Your task to perform on an android device: Add bose soundlink mini to the cart on target Image 0: 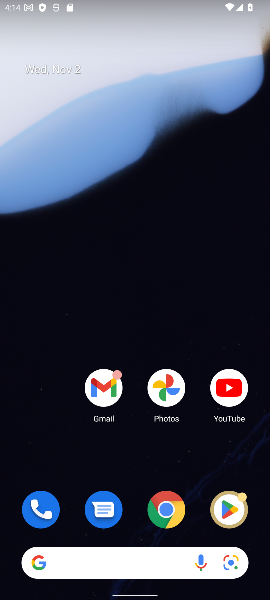
Step 0: click (149, 564)
Your task to perform on an android device: Add bose soundlink mini to the cart on target Image 1: 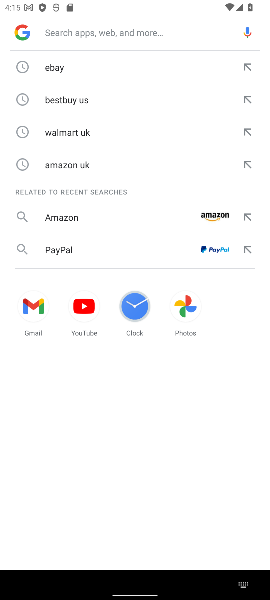
Step 1: type "target"
Your task to perform on an android device: Add bose soundlink mini to the cart on target Image 2: 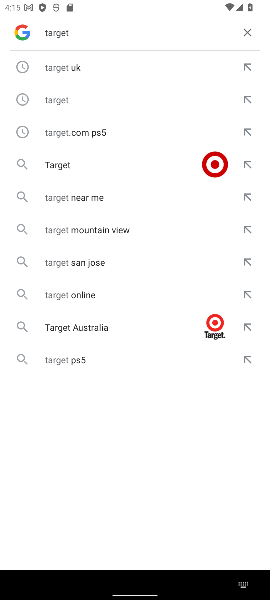
Step 2: click (63, 162)
Your task to perform on an android device: Add bose soundlink mini to the cart on target Image 3: 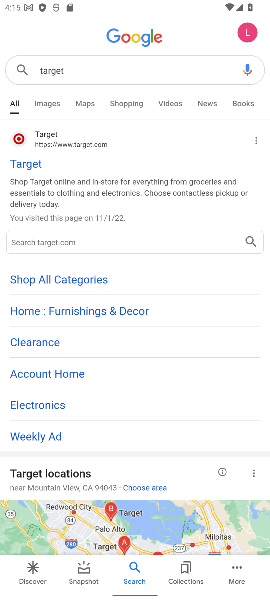
Step 3: click (29, 167)
Your task to perform on an android device: Add bose soundlink mini to the cart on target Image 4: 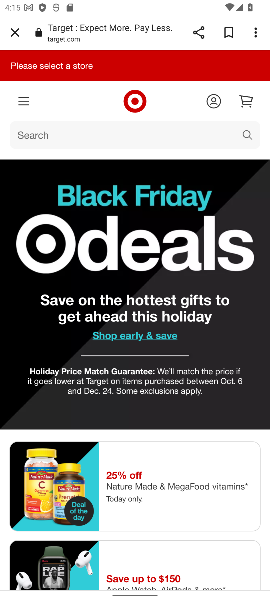
Step 4: click (91, 128)
Your task to perform on an android device: Add bose soundlink mini to the cart on target Image 5: 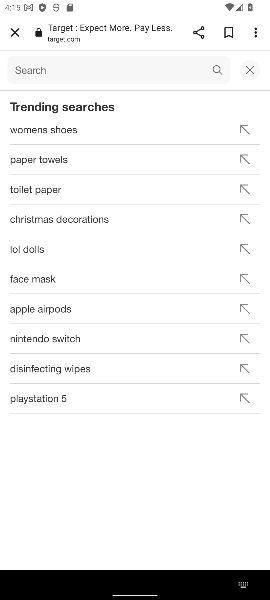
Step 5: type "bose soundlink mini"
Your task to perform on an android device: Add bose soundlink mini to the cart on target Image 6: 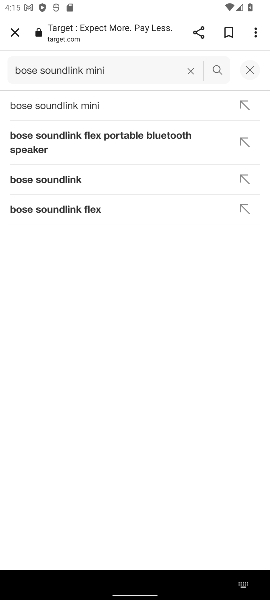
Step 6: click (93, 102)
Your task to perform on an android device: Add bose soundlink mini to the cart on target Image 7: 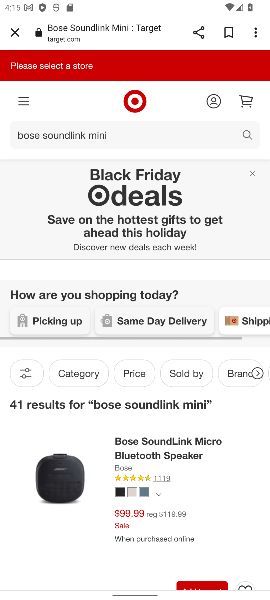
Step 7: click (253, 173)
Your task to perform on an android device: Add bose soundlink mini to the cart on target Image 8: 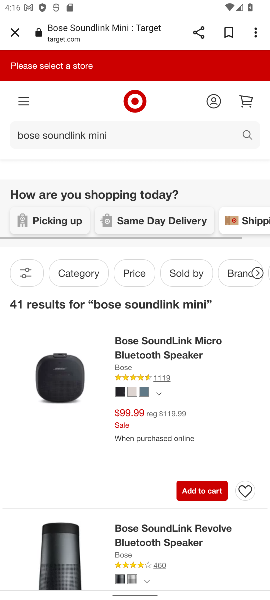
Step 8: click (198, 488)
Your task to perform on an android device: Add bose soundlink mini to the cart on target Image 9: 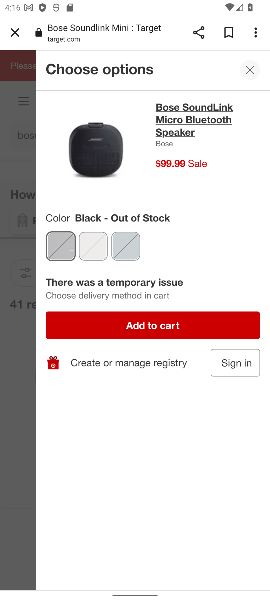
Step 9: click (149, 327)
Your task to perform on an android device: Add bose soundlink mini to the cart on target Image 10: 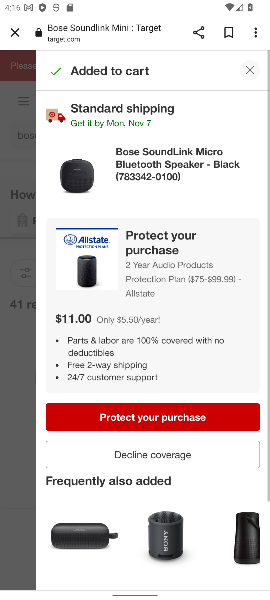
Step 10: task complete